Your task to perform on an android device: turn on airplane mode Image 0: 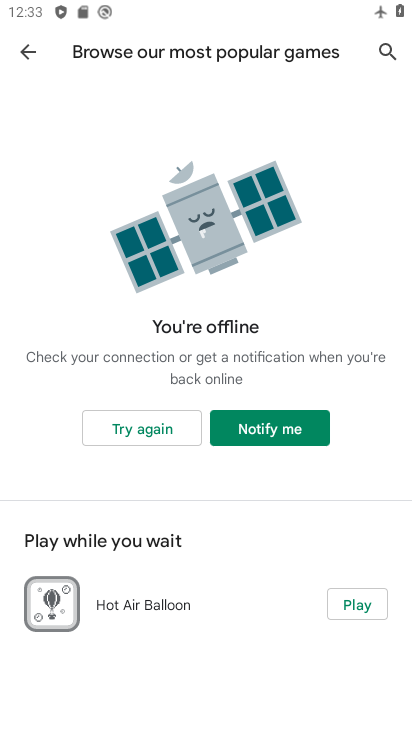
Step 0: press home button
Your task to perform on an android device: turn on airplane mode Image 1: 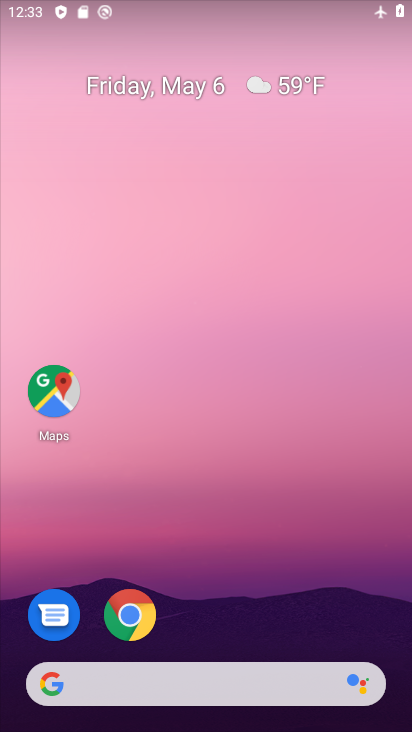
Step 1: drag from (226, 606) to (257, 17)
Your task to perform on an android device: turn on airplane mode Image 2: 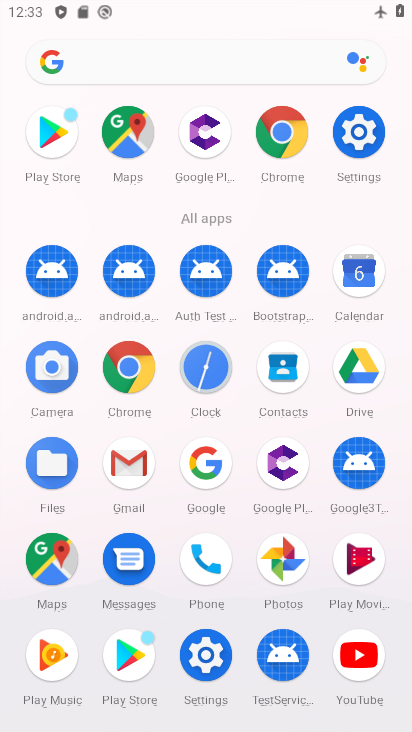
Step 2: click (354, 128)
Your task to perform on an android device: turn on airplane mode Image 3: 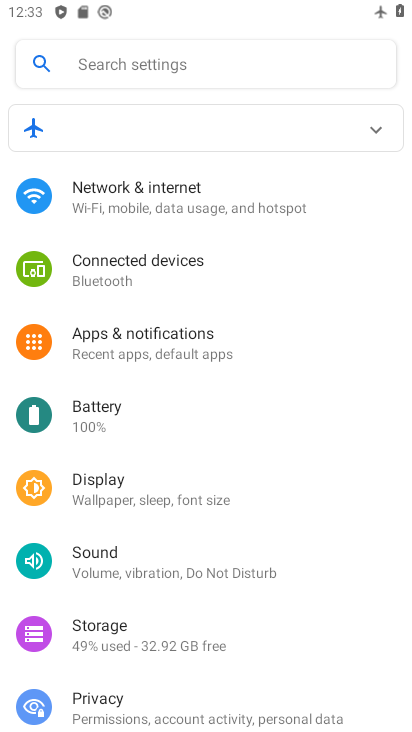
Step 3: click (271, 198)
Your task to perform on an android device: turn on airplane mode Image 4: 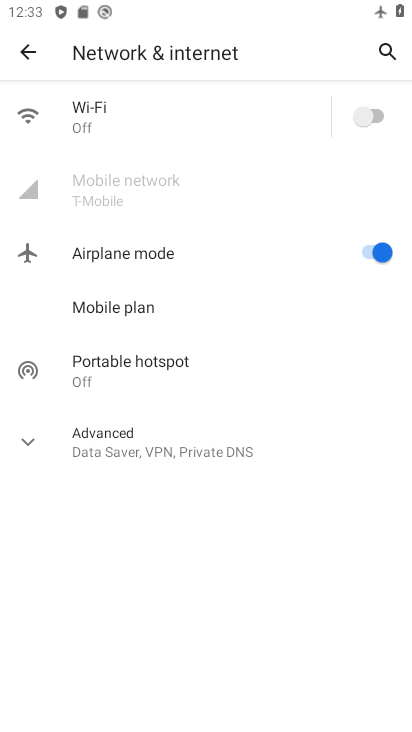
Step 4: task complete